Your task to perform on an android device: Do I have any events tomorrow? Image 0: 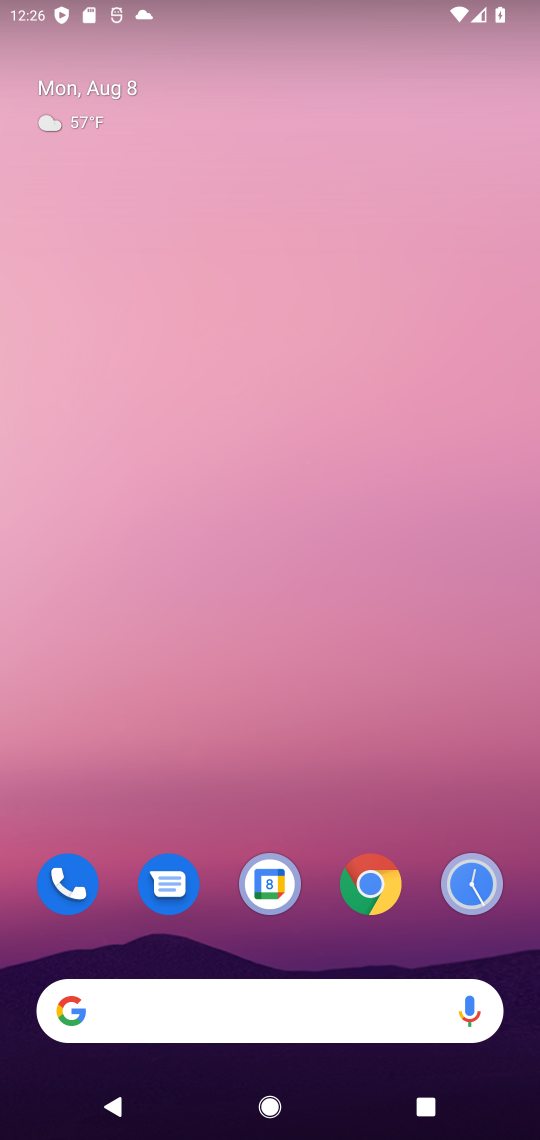
Step 0: click (272, 895)
Your task to perform on an android device: Do I have any events tomorrow? Image 1: 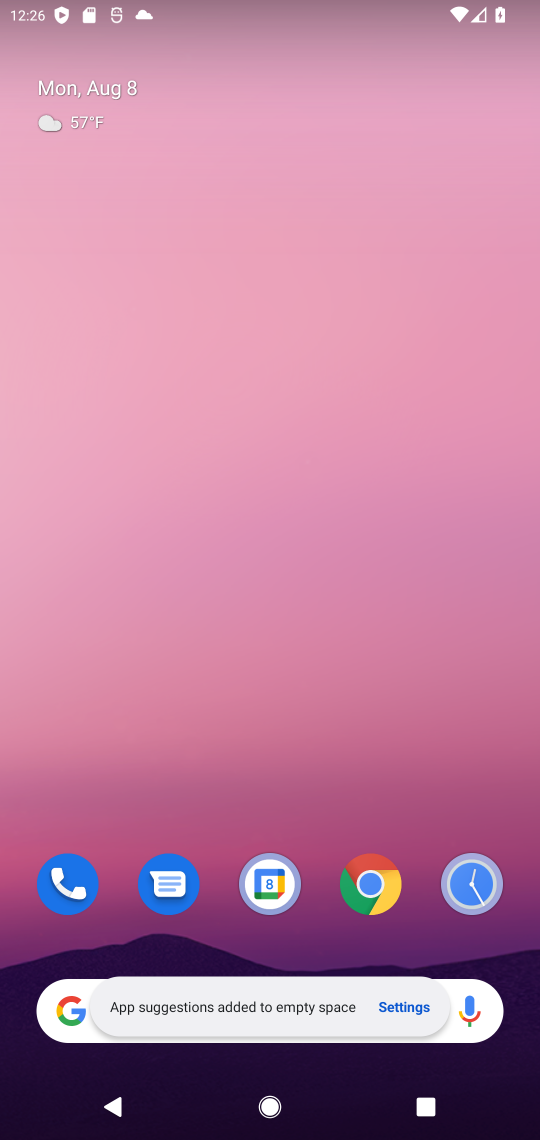
Step 1: click (272, 895)
Your task to perform on an android device: Do I have any events tomorrow? Image 2: 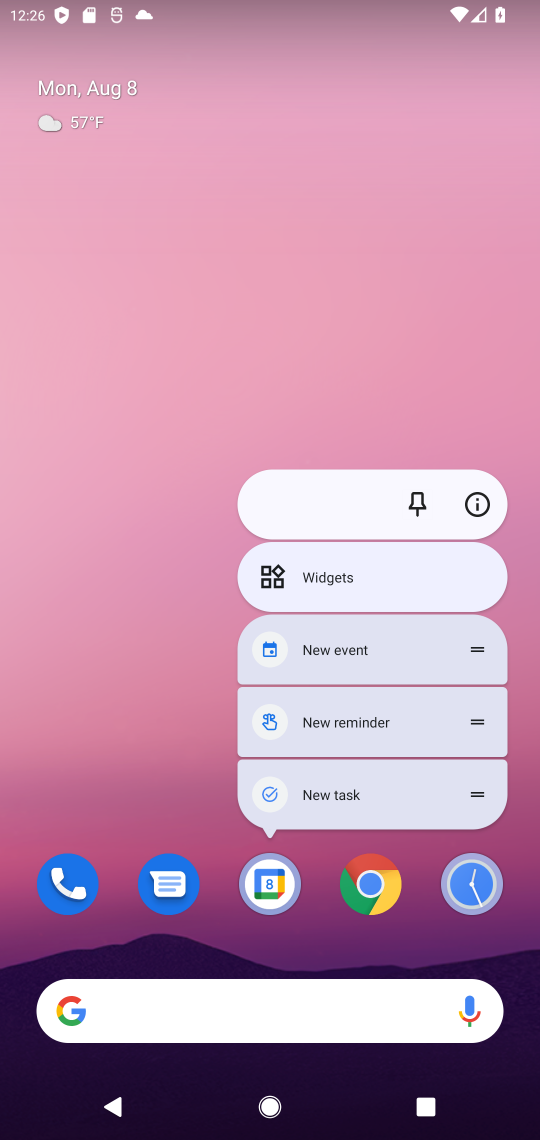
Step 2: click (272, 895)
Your task to perform on an android device: Do I have any events tomorrow? Image 3: 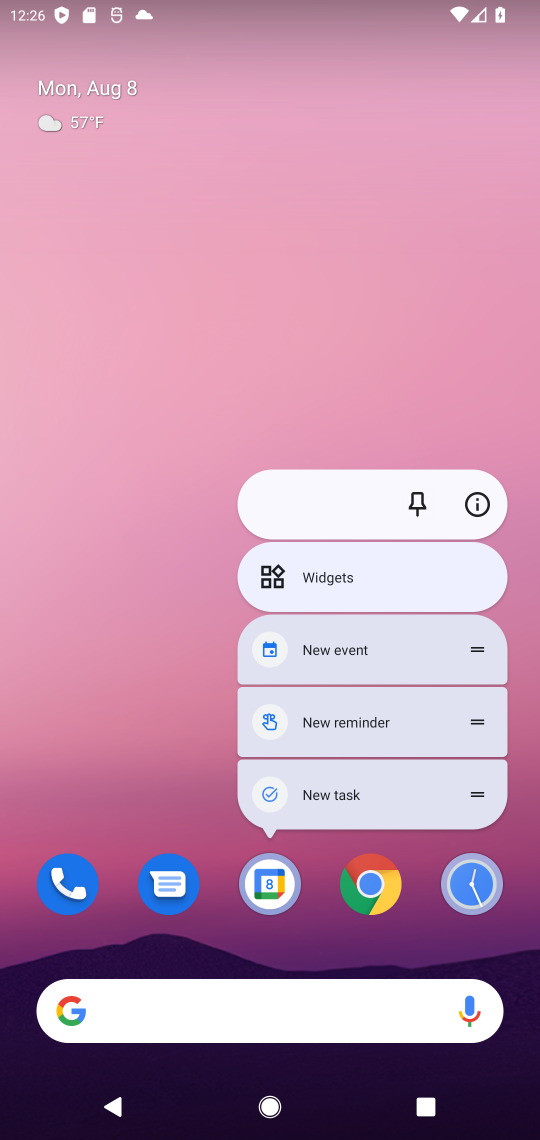
Step 3: click (272, 895)
Your task to perform on an android device: Do I have any events tomorrow? Image 4: 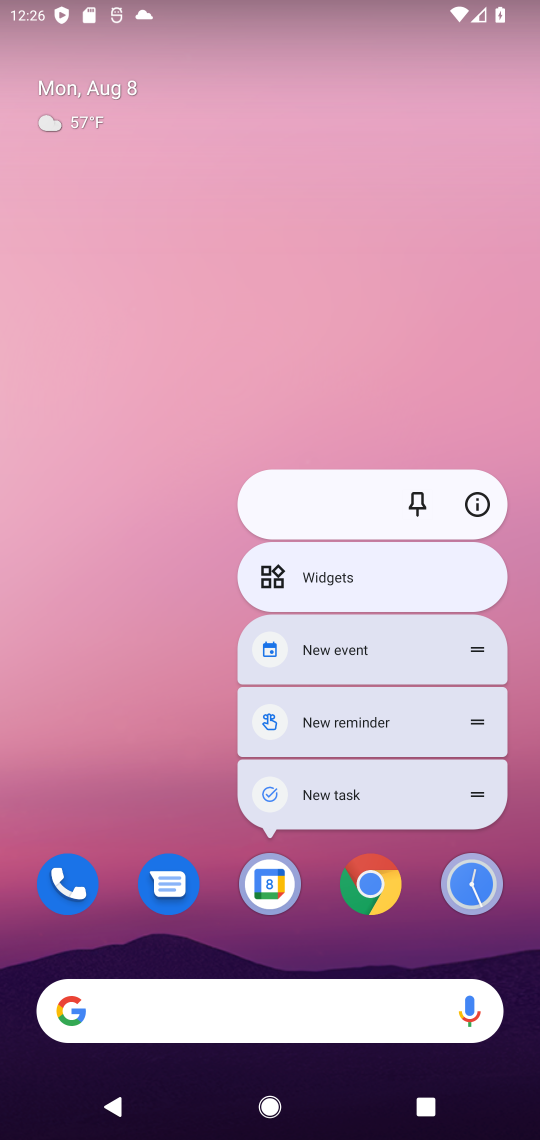
Step 4: click (272, 895)
Your task to perform on an android device: Do I have any events tomorrow? Image 5: 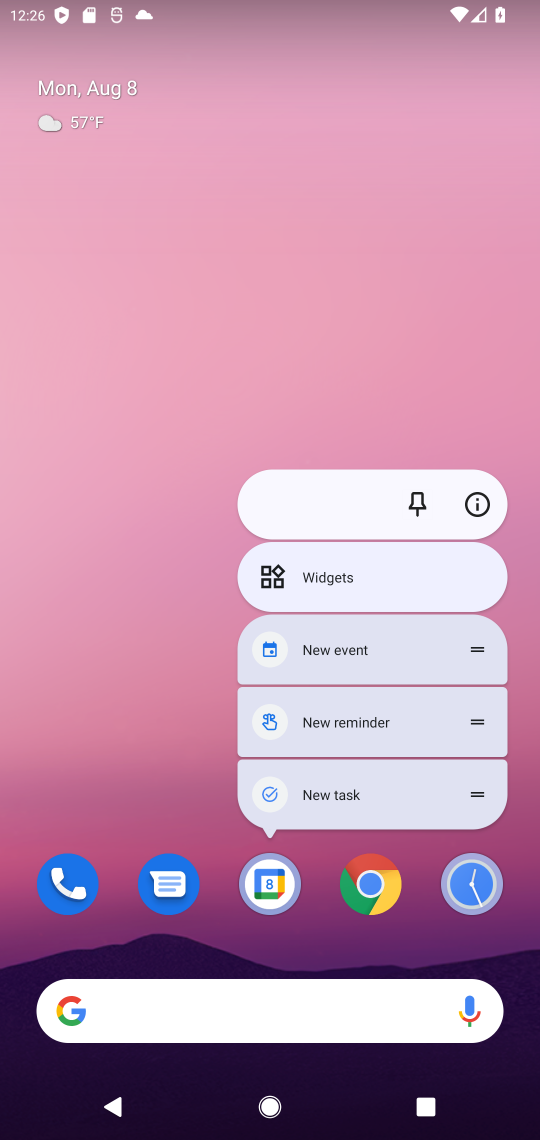
Step 5: click (272, 895)
Your task to perform on an android device: Do I have any events tomorrow? Image 6: 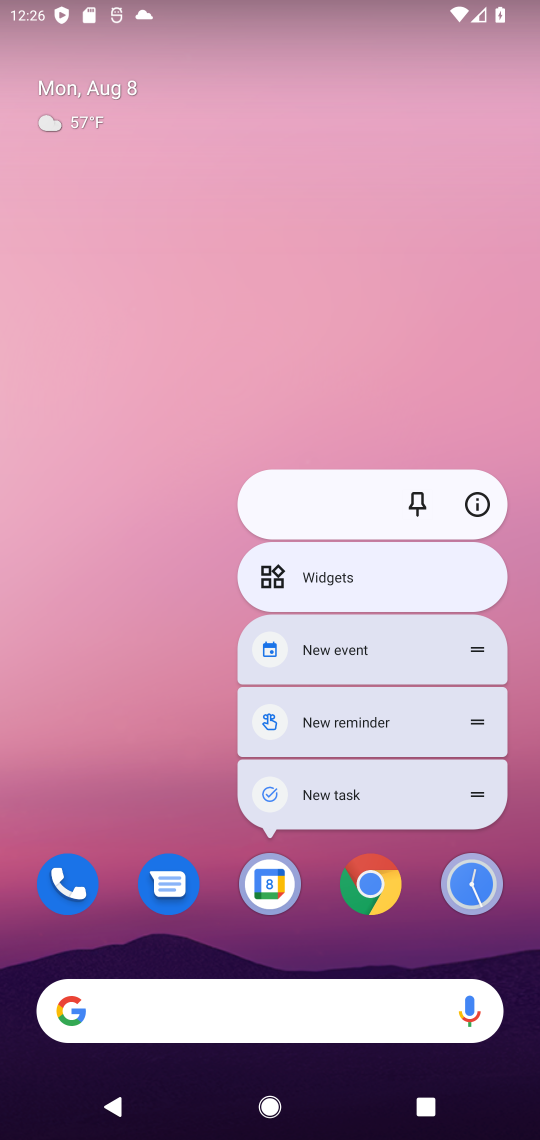
Step 6: click (272, 895)
Your task to perform on an android device: Do I have any events tomorrow? Image 7: 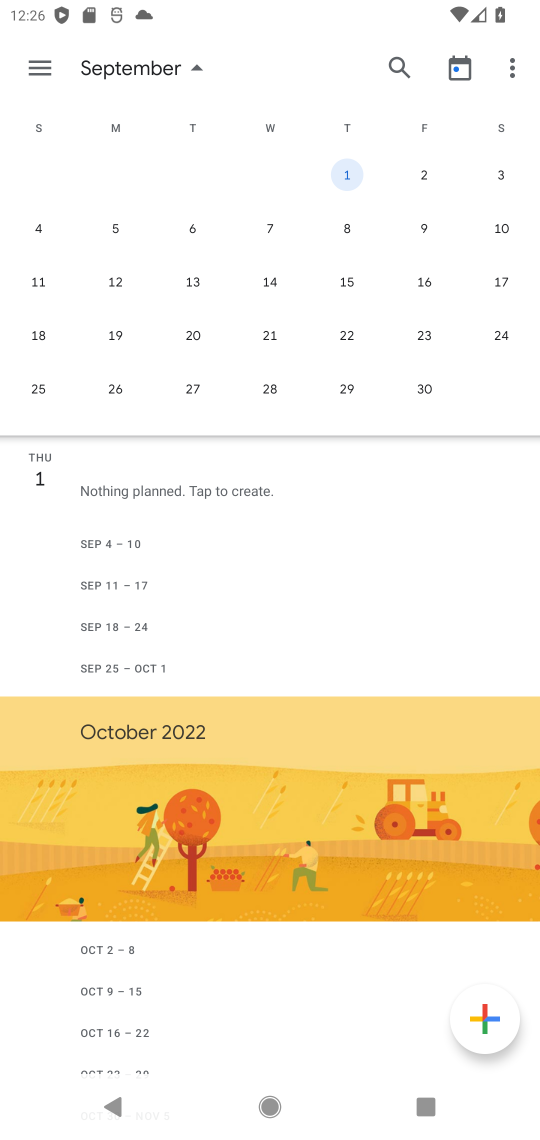
Step 7: drag from (117, 294) to (349, 1094)
Your task to perform on an android device: Do I have any events tomorrow? Image 8: 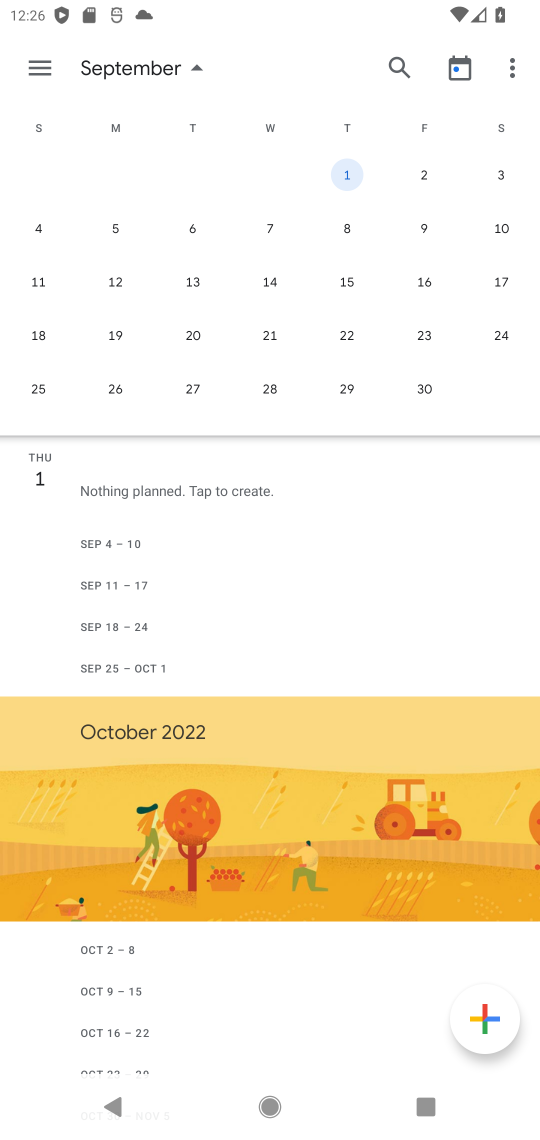
Step 8: drag from (57, 305) to (503, 285)
Your task to perform on an android device: Do I have any events tomorrow? Image 9: 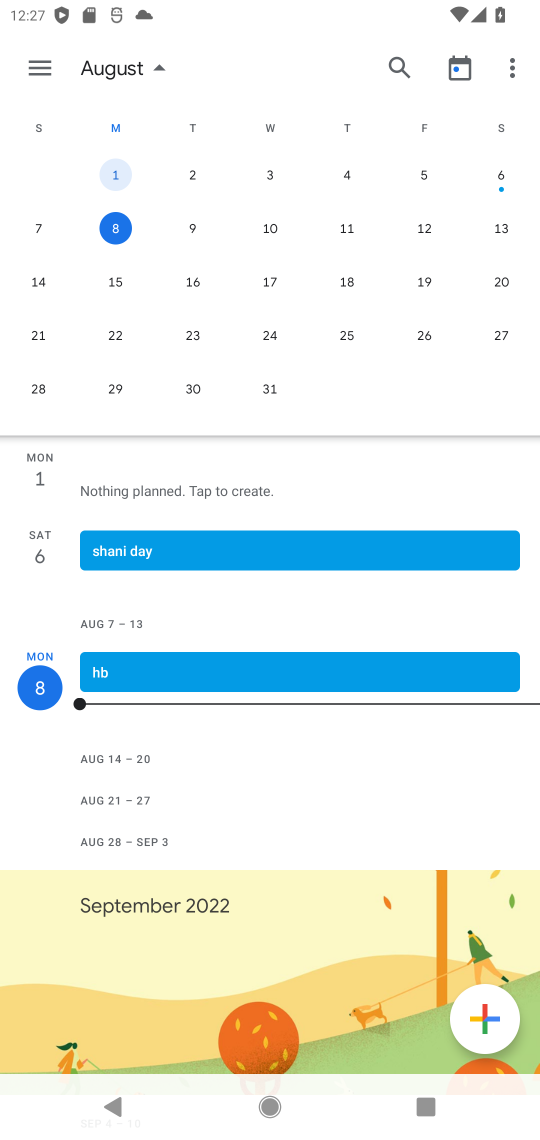
Step 9: click (198, 233)
Your task to perform on an android device: Do I have any events tomorrow? Image 10: 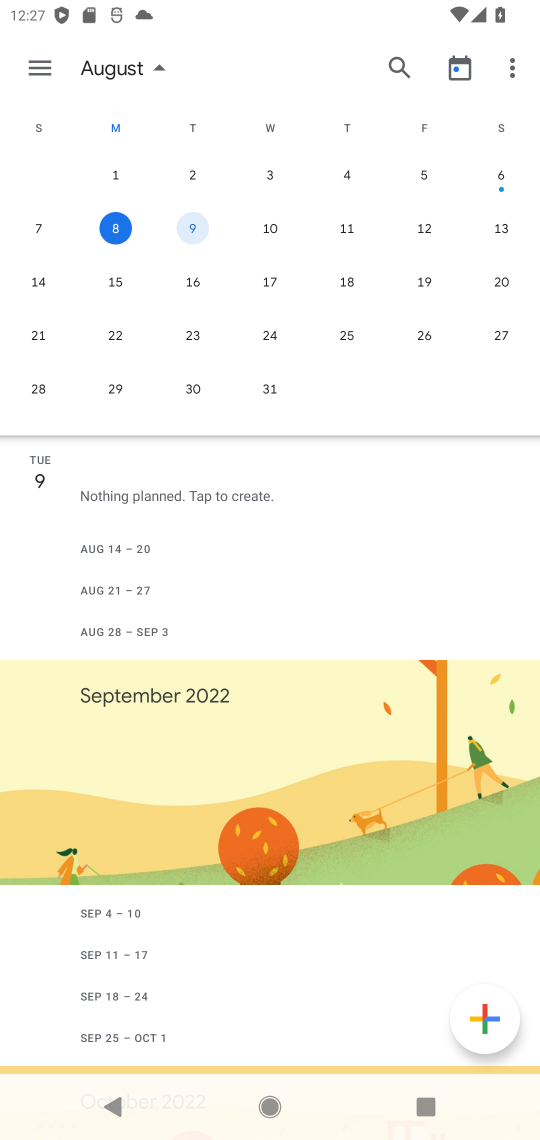
Step 10: task complete